Your task to perform on an android device: show emergency info Image 0: 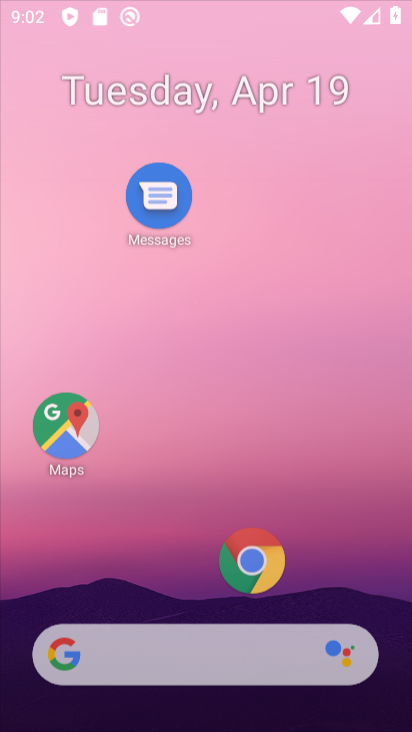
Step 0: drag from (200, 233) to (183, 15)
Your task to perform on an android device: show emergency info Image 1: 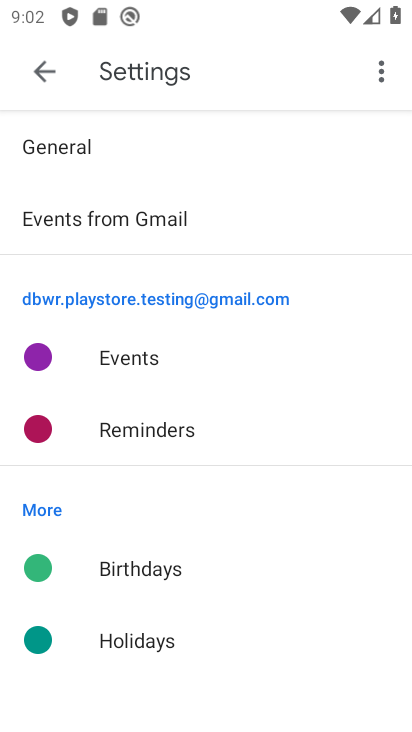
Step 1: press home button
Your task to perform on an android device: show emergency info Image 2: 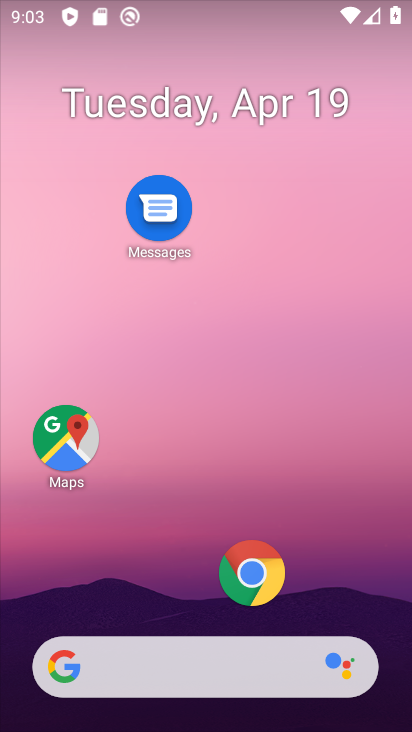
Step 2: drag from (187, 570) to (249, 66)
Your task to perform on an android device: show emergency info Image 3: 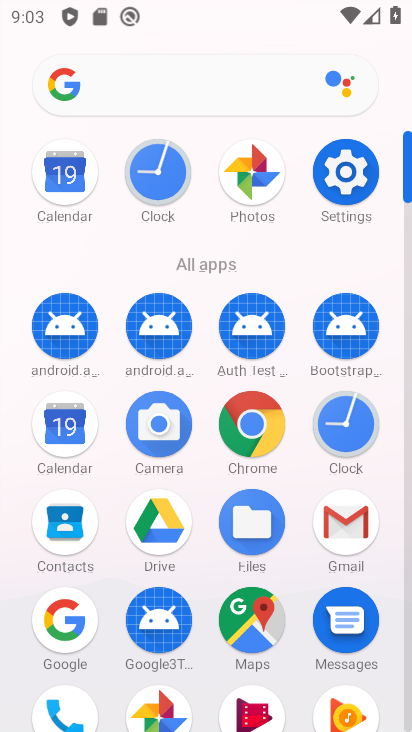
Step 3: click (346, 174)
Your task to perform on an android device: show emergency info Image 4: 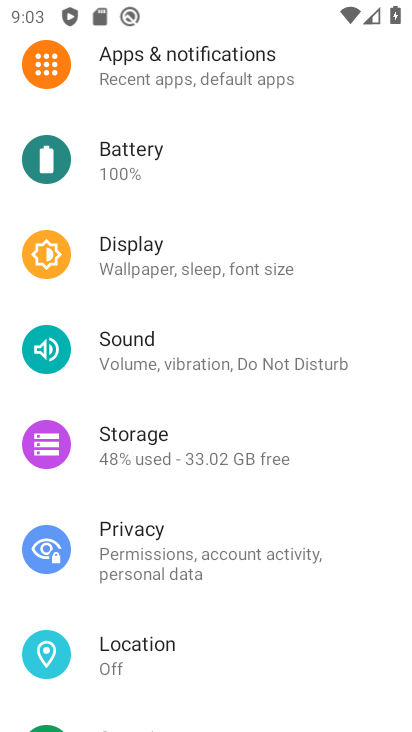
Step 4: drag from (203, 606) to (257, 133)
Your task to perform on an android device: show emergency info Image 5: 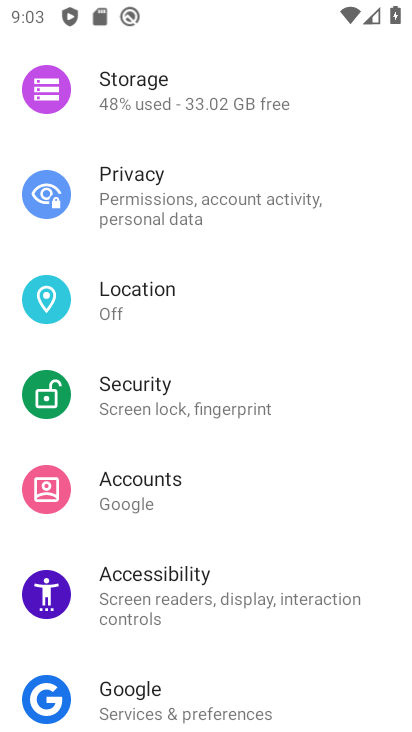
Step 5: drag from (219, 658) to (205, 73)
Your task to perform on an android device: show emergency info Image 6: 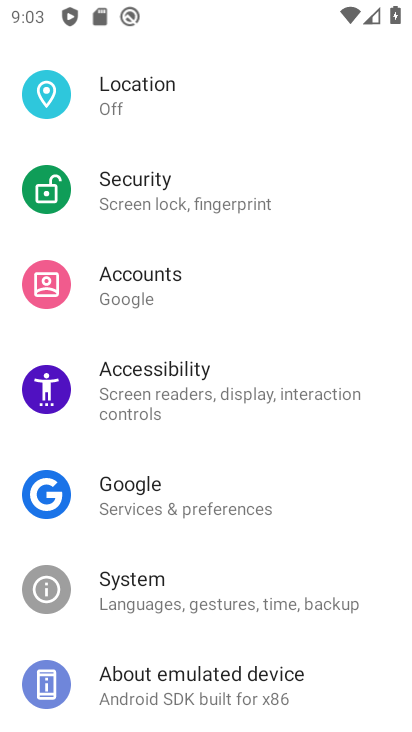
Step 6: click (167, 696)
Your task to perform on an android device: show emergency info Image 7: 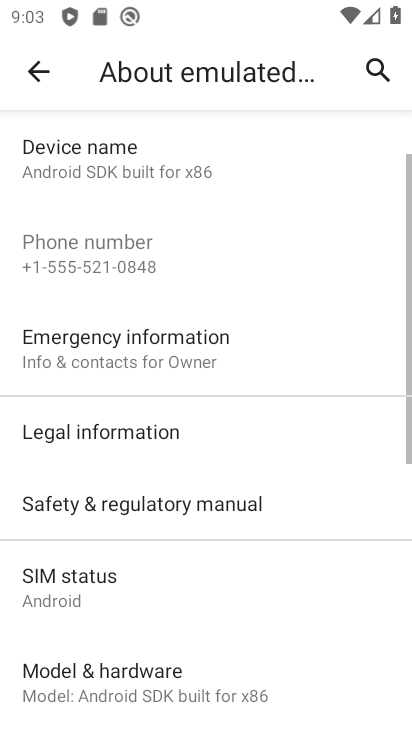
Step 7: drag from (185, 644) to (179, 61)
Your task to perform on an android device: show emergency info Image 8: 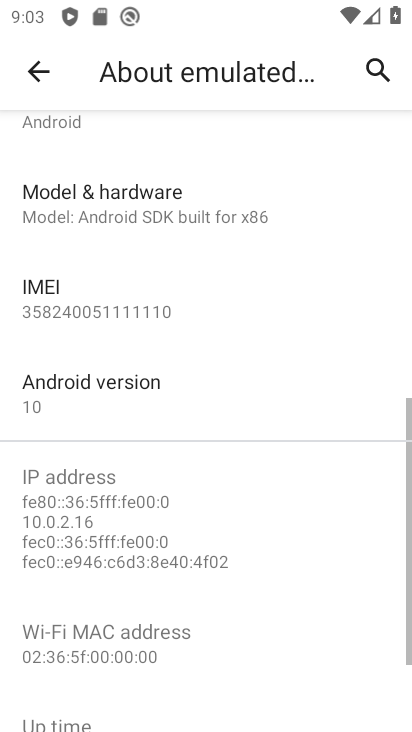
Step 8: drag from (120, 593) to (201, 119)
Your task to perform on an android device: show emergency info Image 9: 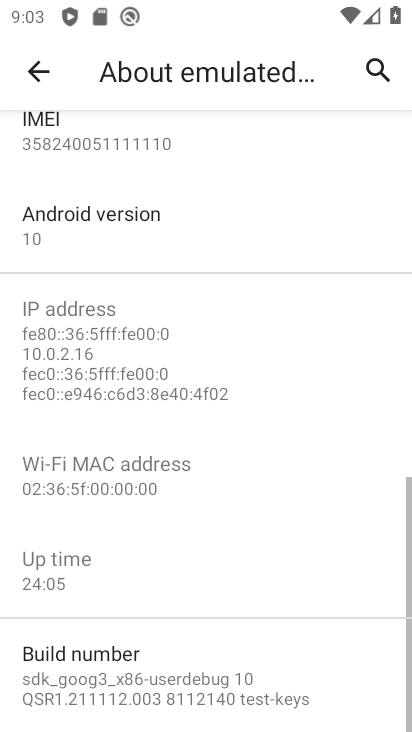
Step 9: drag from (183, 605) to (215, 160)
Your task to perform on an android device: show emergency info Image 10: 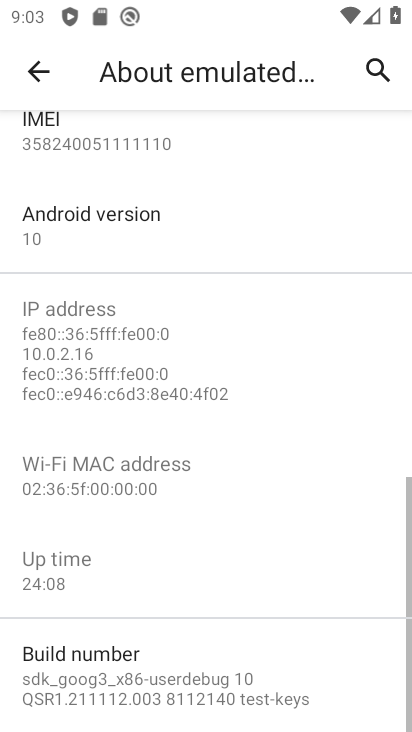
Step 10: drag from (215, 160) to (202, 633)
Your task to perform on an android device: show emergency info Image 11: 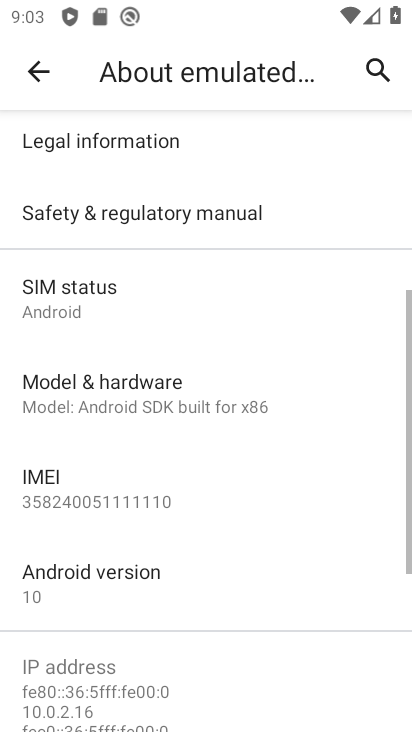
Step 11: drag from (240, 277) to (224, 669)
Your task to perform on an android device: show emergency info Image 12: 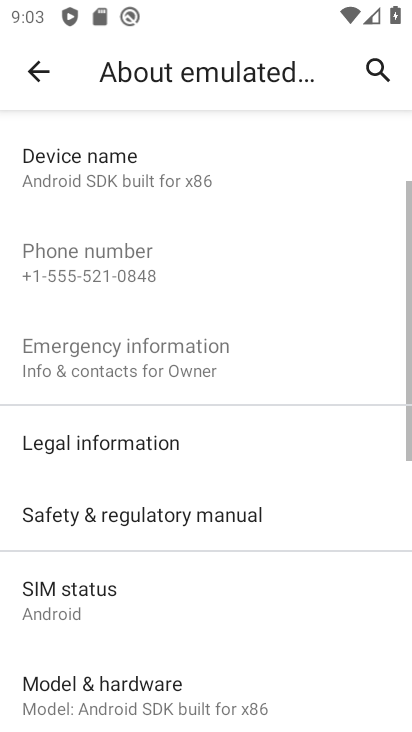
Step 12: click (182, 352)
Your task to perform on an android device: show emergency info Image 13: 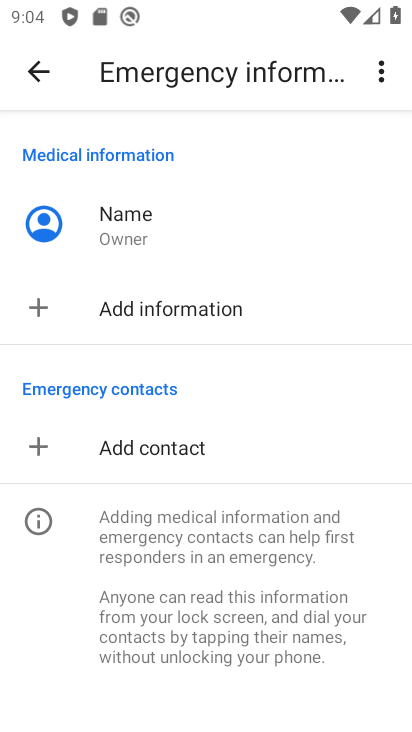
Step 13: task complete